Your task to perform on an android device: check battery use Image 0: 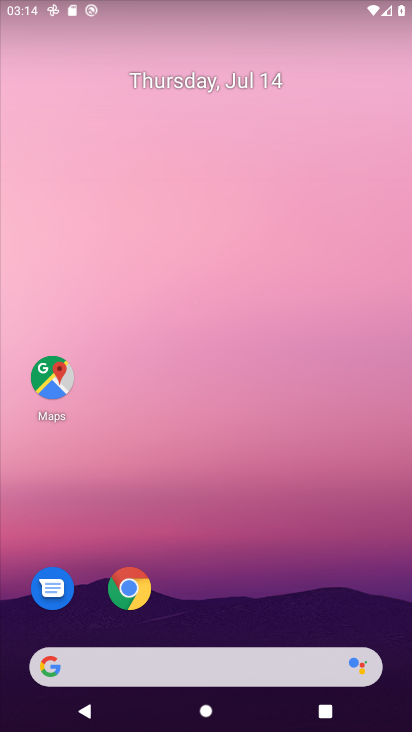
Step 0: drag from (254, 597) to (188, 126)
Your task to perform on an android device: check battery use Image 1: 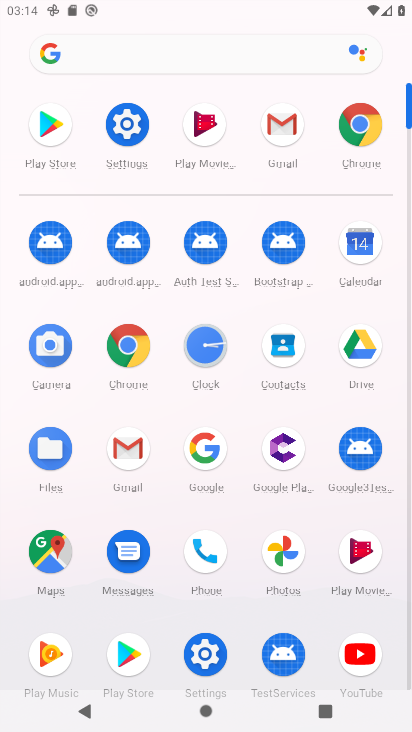
Step 1: click (118, 121)
Your task to perform on an android device: check battery use Image 2: 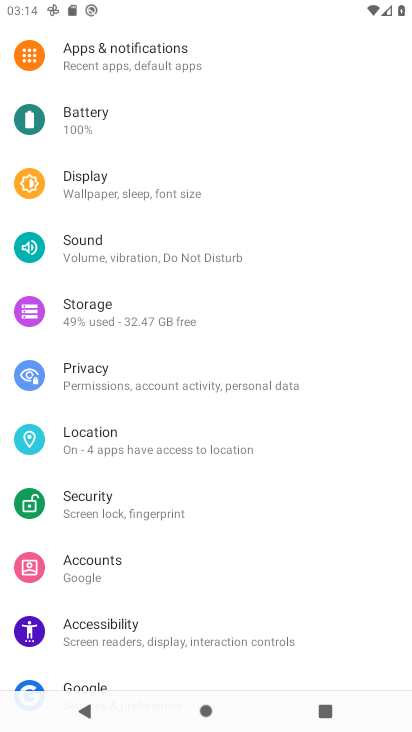
Step 2: click (119, 125)
Your task to perform on an android device: check battery use Image 3: 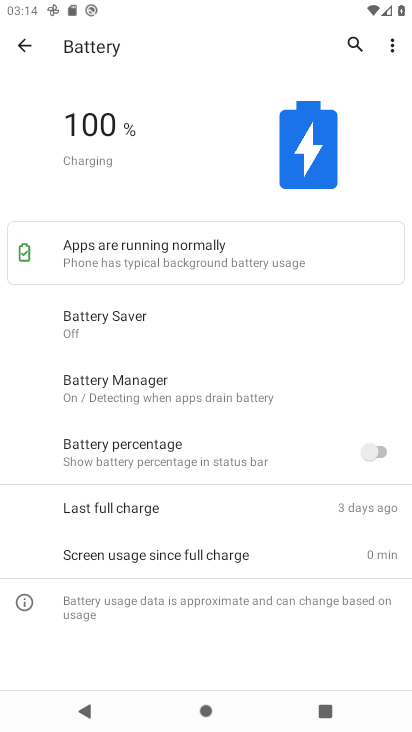
Step 3: click (393, 46)
Your task to perform on an android device: check battery use Image 4: 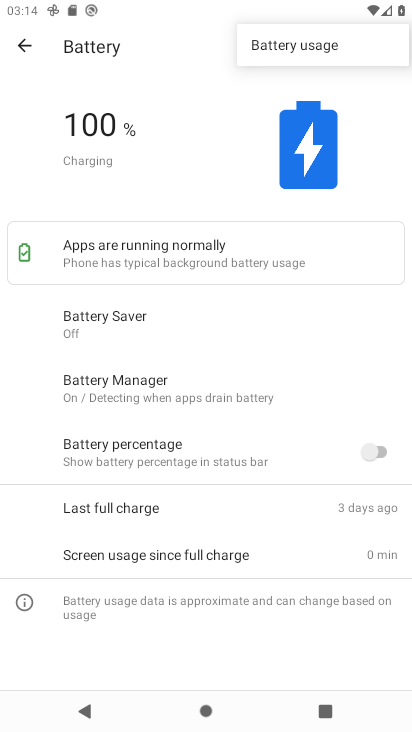
Step 4: click (334, 49)
Your task to perform on an android device: check battery use Image 5: 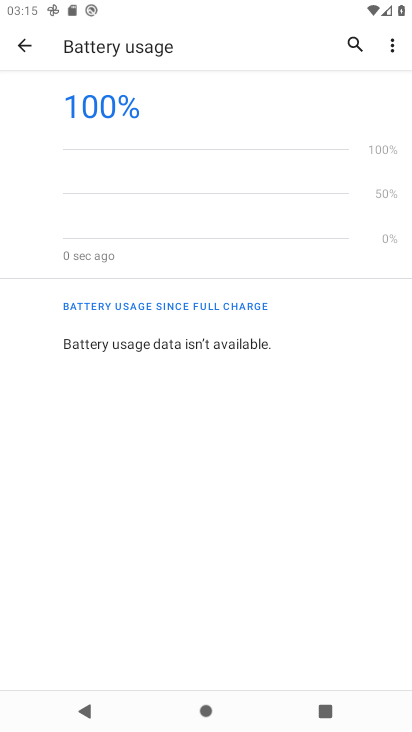
Step 5: task complete